Your task to perform on an android device: turn off data saver in the chrome app Image 0: 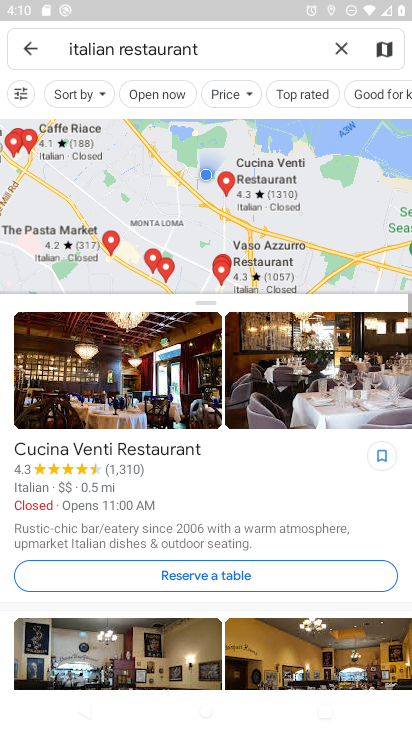
Step 0: press home button
Your task to perform on an android device: turn off data saver in the chrome app Image 1: 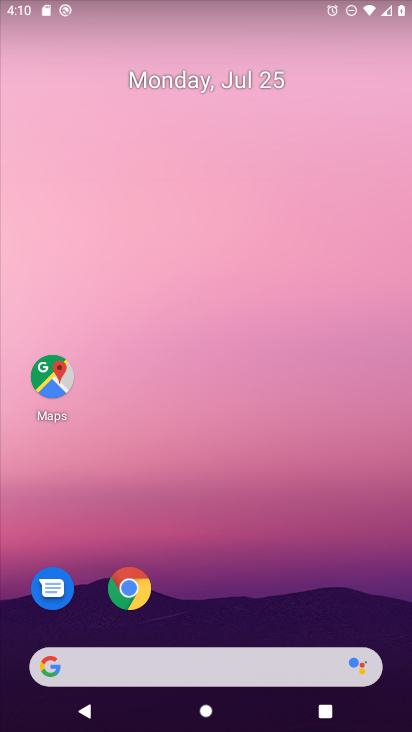
Step 1: drag from (248, 701) to (240, 64)
Your task to perform on an android device: turn off data saver in the chrome app Image 2: 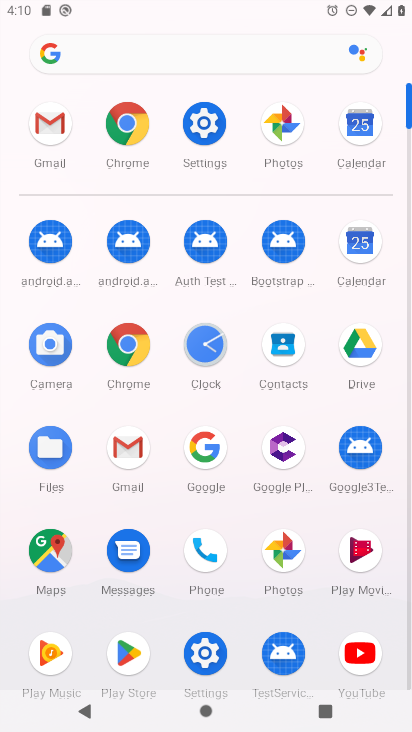
Step 2: click (122, 125)
Your task to perform on an android device: turn off data saver in the chrome app Image 3: 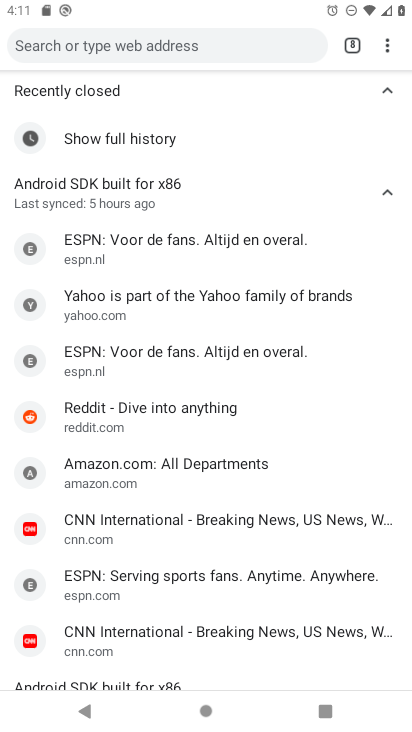
Step 3: click (388, 45)
Your task to perform on an android device: turn off data saver in the chrome app Image 4: 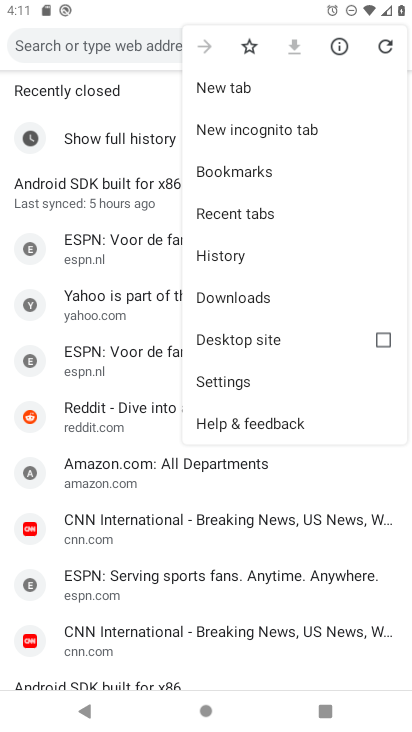
Step 4: click (227, 379)
Your task to perform on an android device: turn off data saver in the chrome app Image 5: 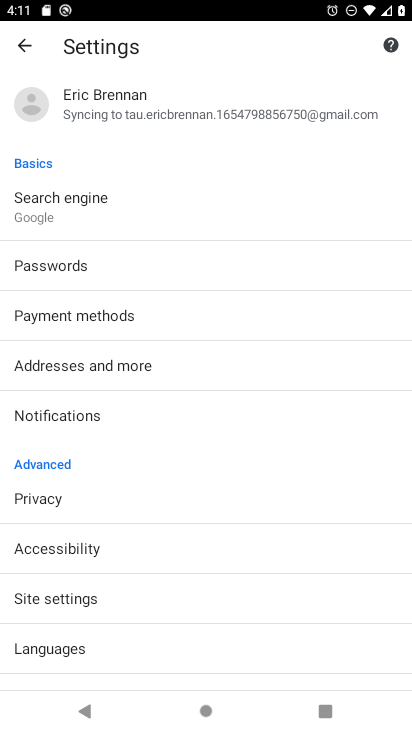
Step 5: drag from (86, 618) to (88, 403)
Your task to perform on an android device: turn off data saver in the chrome app Image 6: 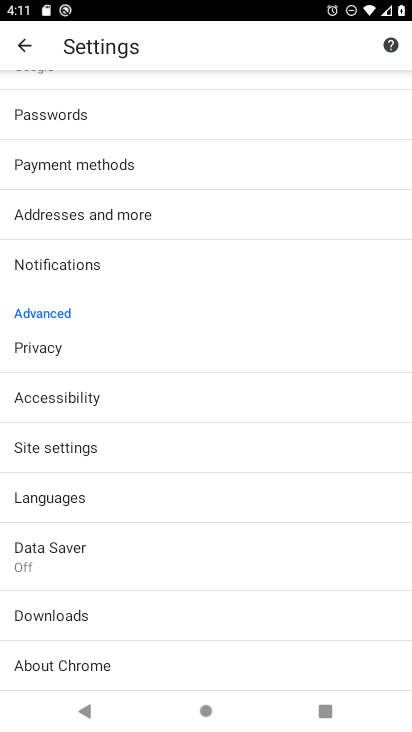
Step 6: click (68, 545)
Your task to perform on an android device: turn off data saver in the chrome app Image 7: 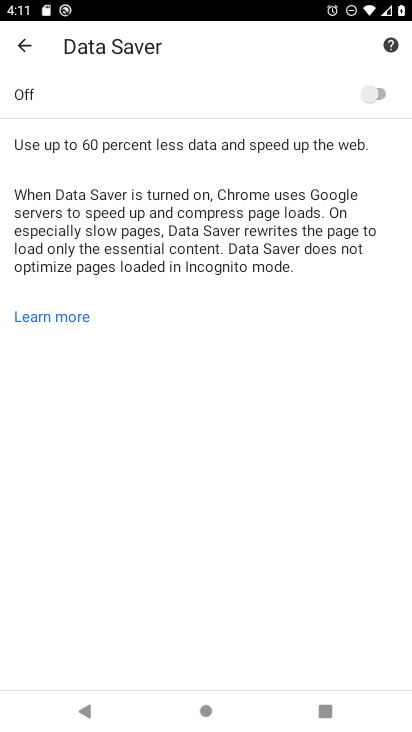
Step 7: click (384, 85)
Your task to perform on an android device: turn off data saver in the chrome app Image 8: 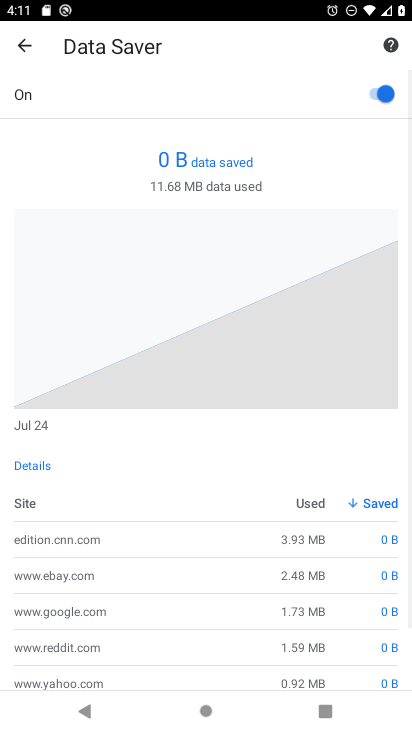
Step 8: task complete